Your task to perform on an android device: Search for a custom made wallet Image 0: 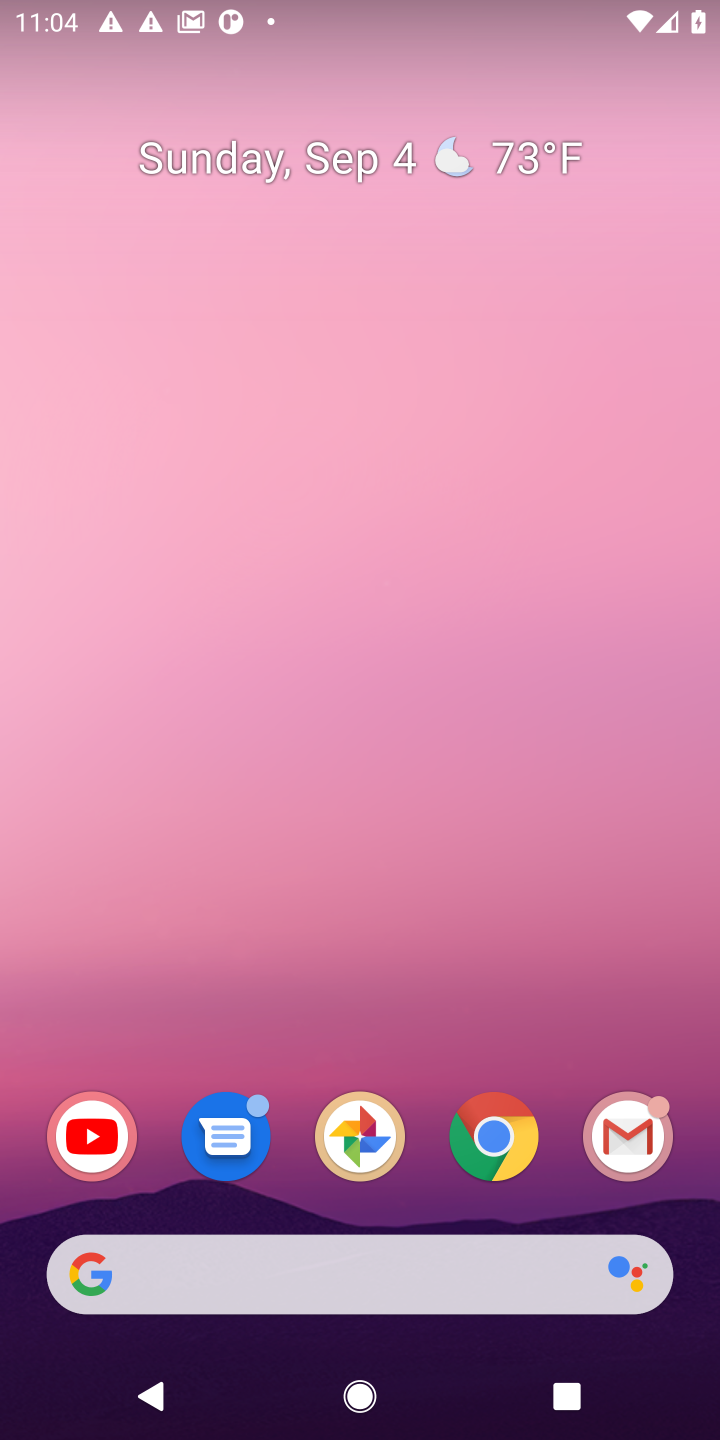
Step 0: click (502, 1140)
Your task to perform on an android device: Search for a custom made wallet Image 1: 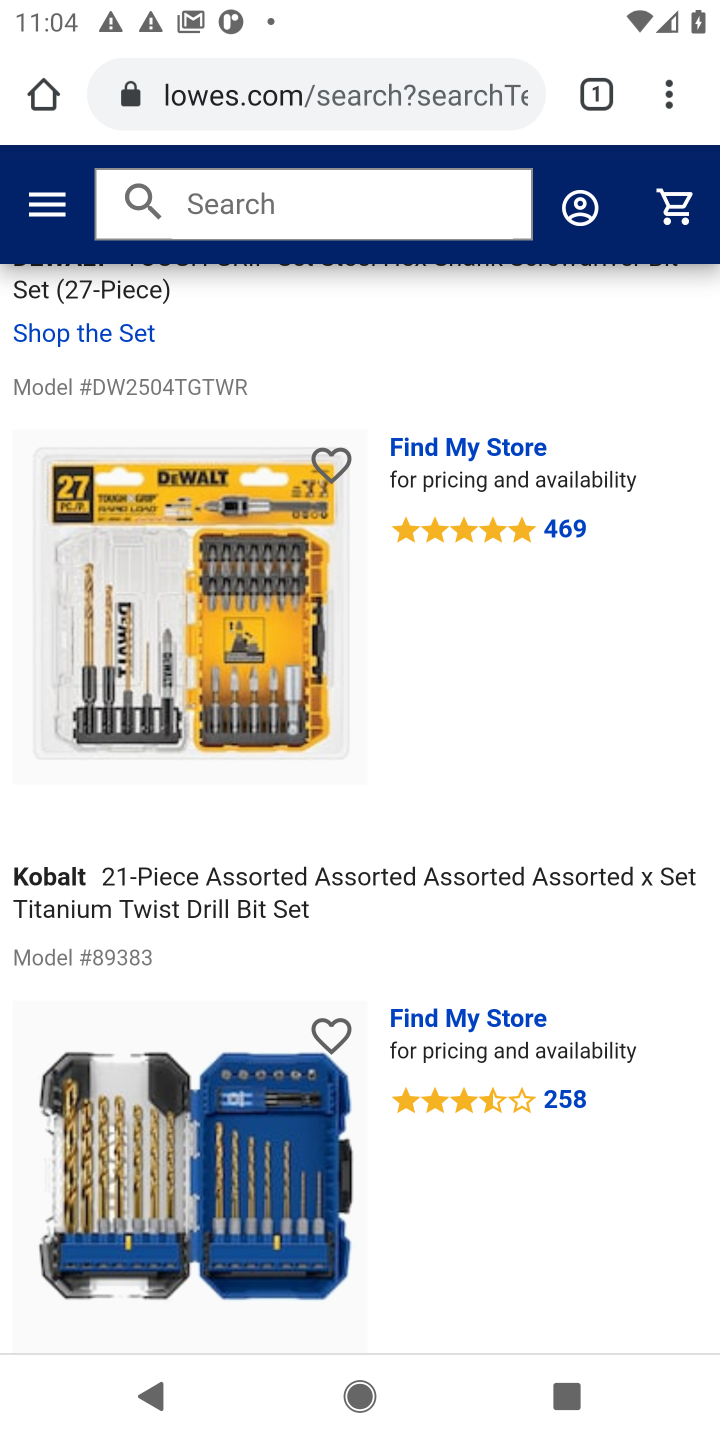
Step 1: click (422, 85)
Your task to perform on an android device: Search for a custom made wallet Image 2: 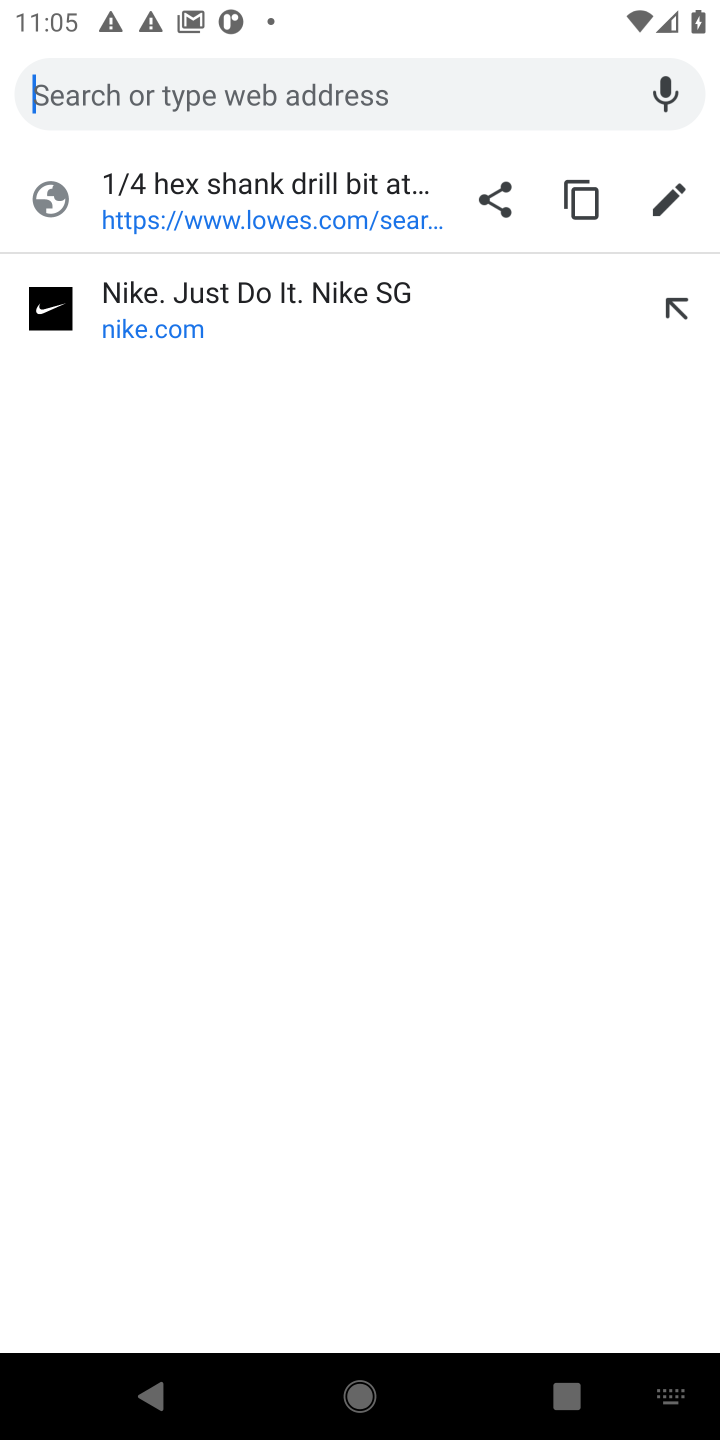
Step 2: type "custom made wallet"
Your task to perform on an android device: Search for a custom made wallet Image 3: 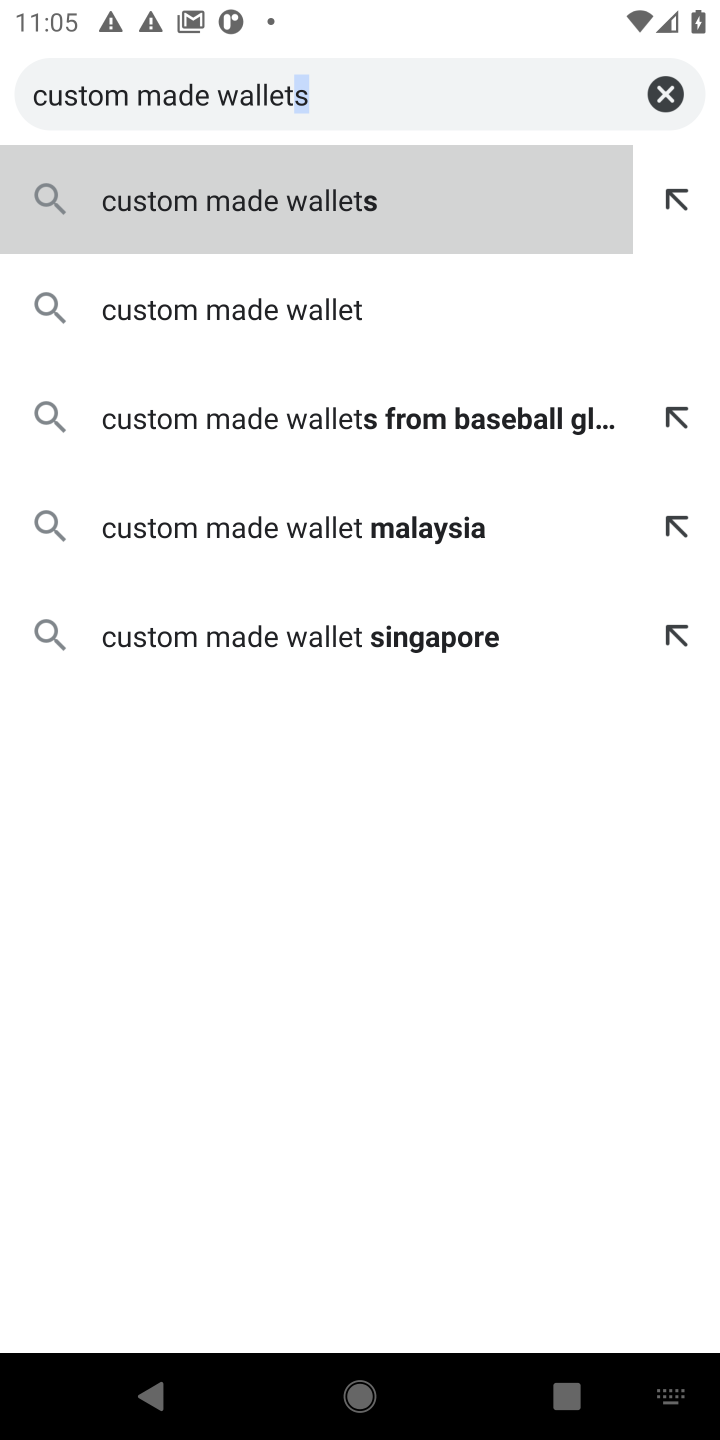
Step 3: press enter
Your task to perform on an android device: Search for a custom made wallet Image 4: 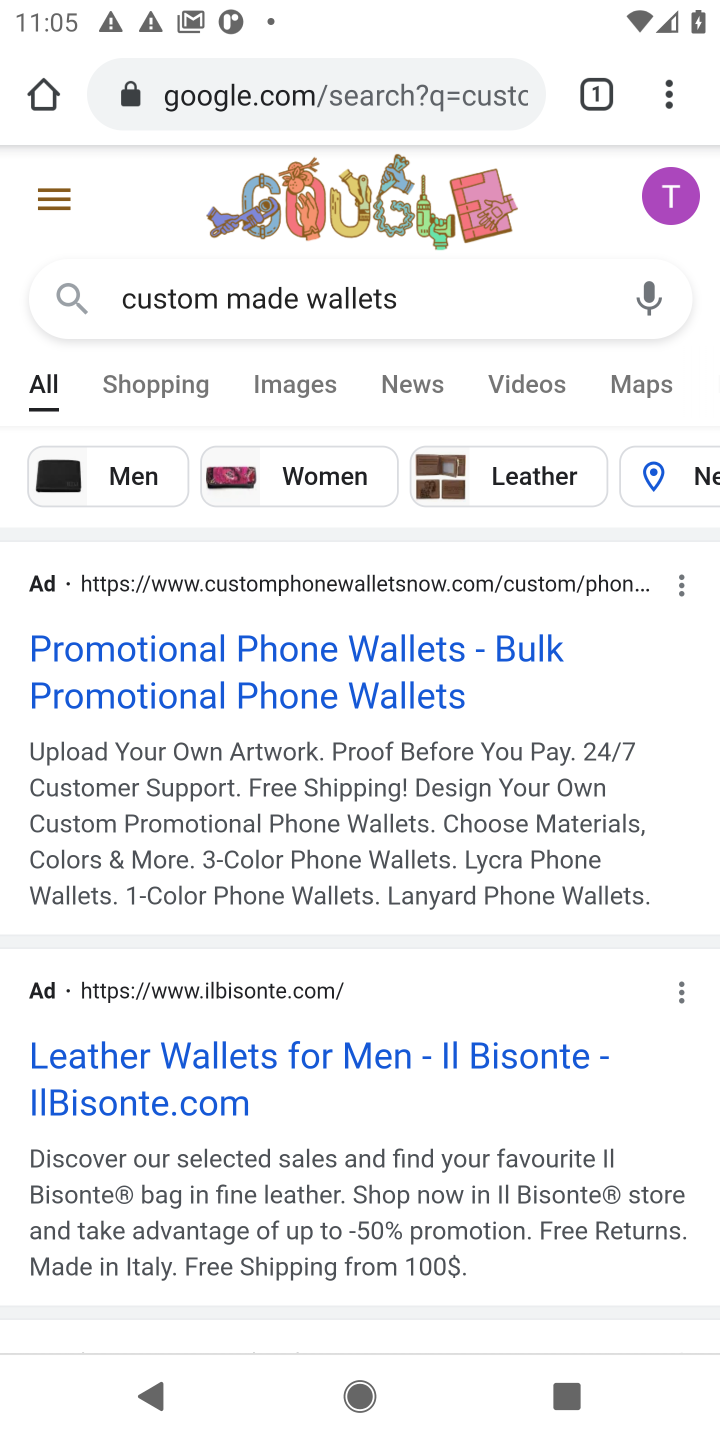
Step 4: drag from (273, 931) to (406, 550)
Your task to perform on an android device: Search for a custom made wallet Image 5: 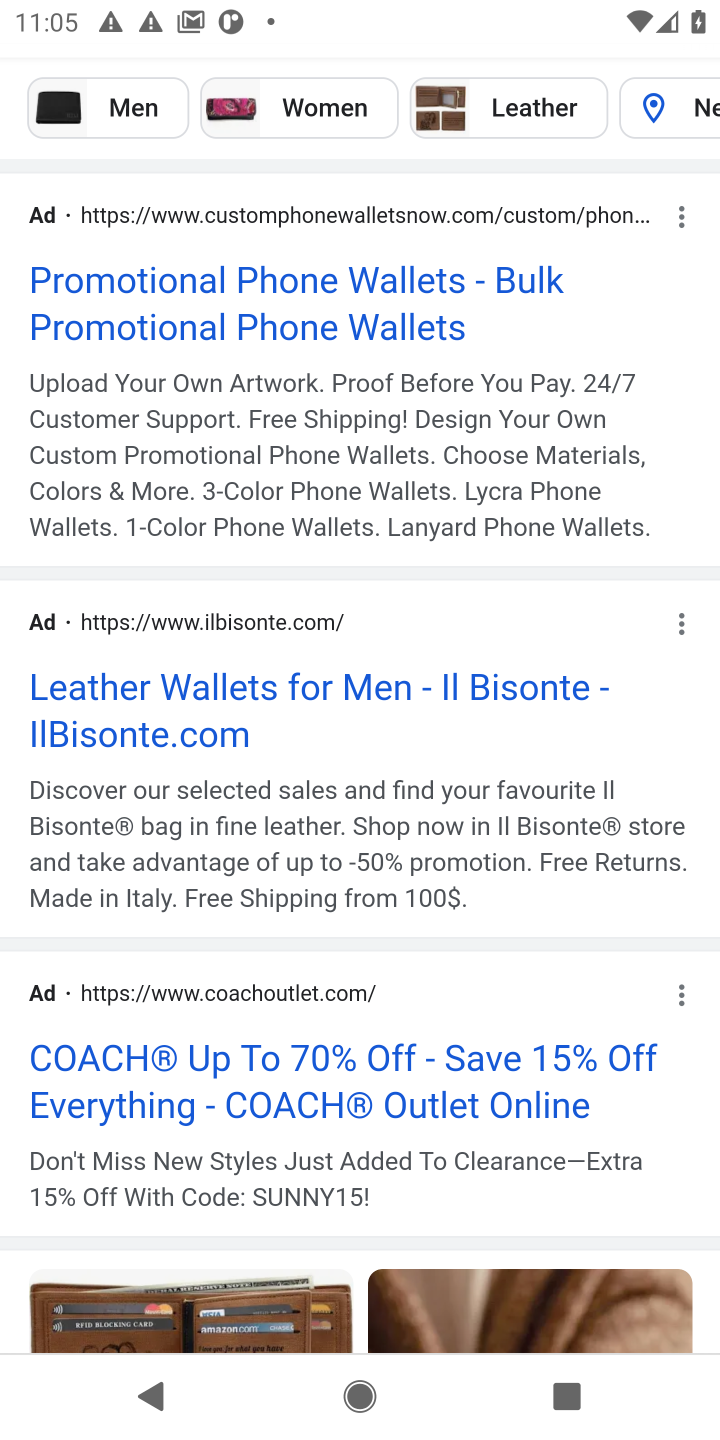
Step 5: drag from (417, 1035) to (542, 426)
Your task to perform on an android device: Search for a custom made wallet Image 6: 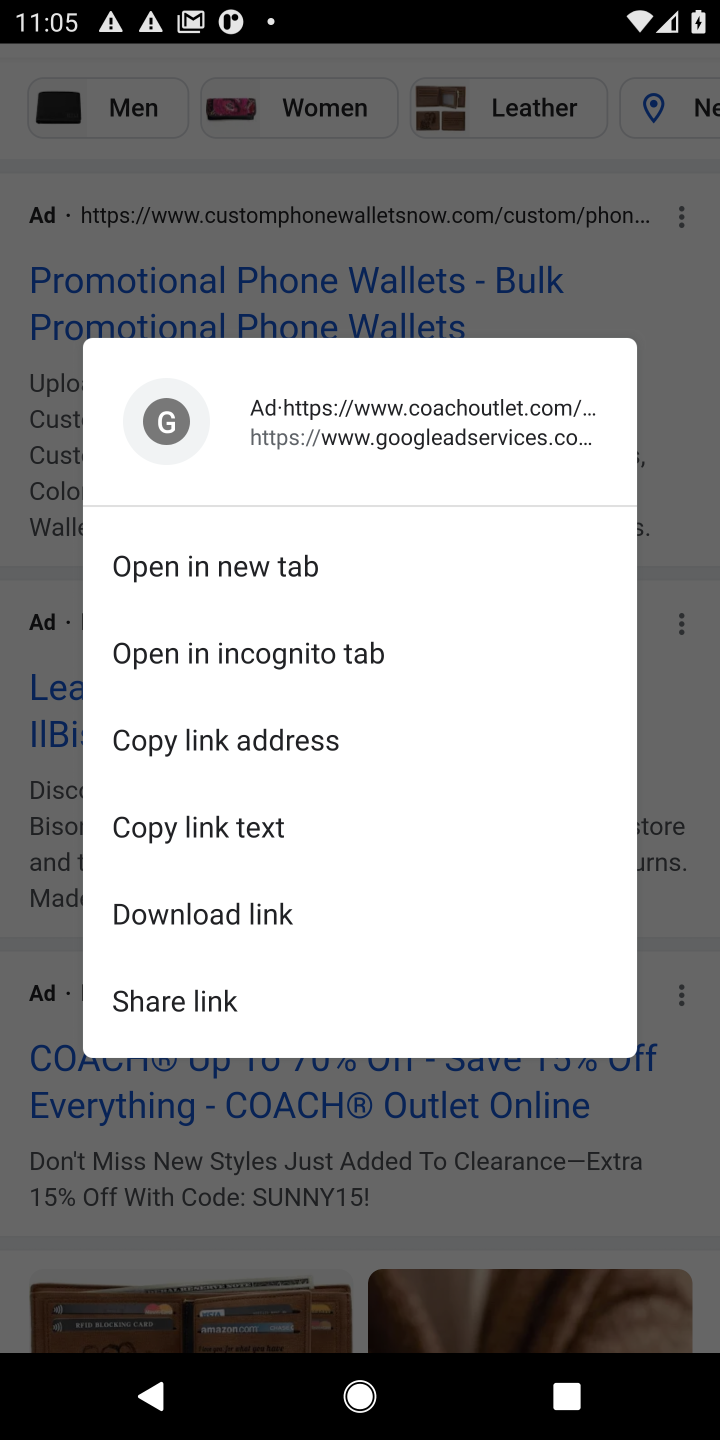
Step 6: click (684, 782)
Your task to perform on an android device: Search for a custom made wallet Image 7: 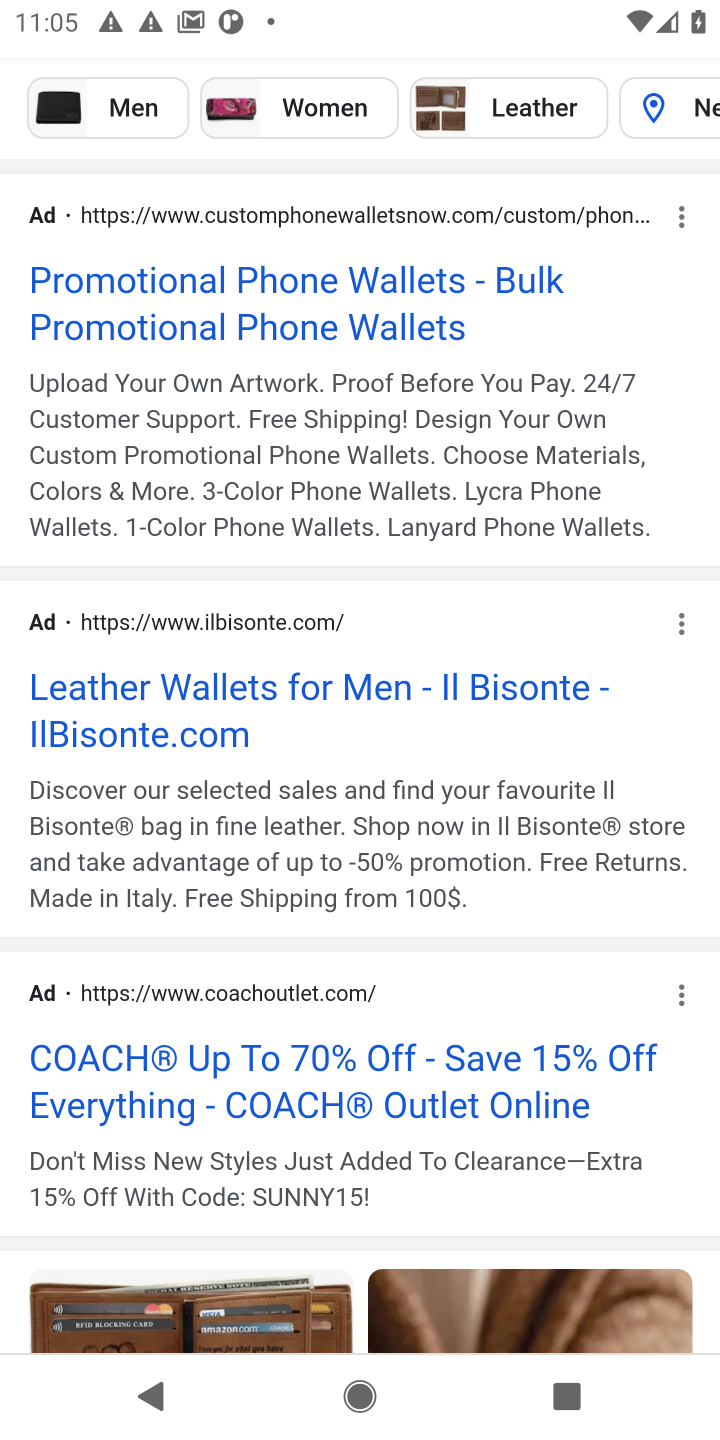
Step 7: task complete